Your task to perform on an android device: show emergency info Image 0: 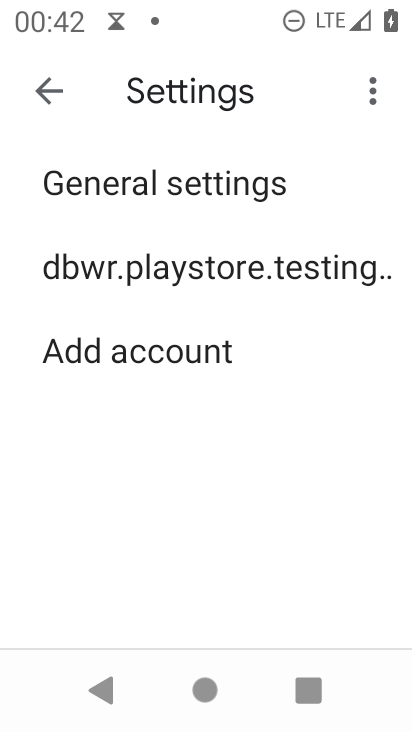
Step 0: press home button
Your task to perform on an android device: show emergency info Image 1: 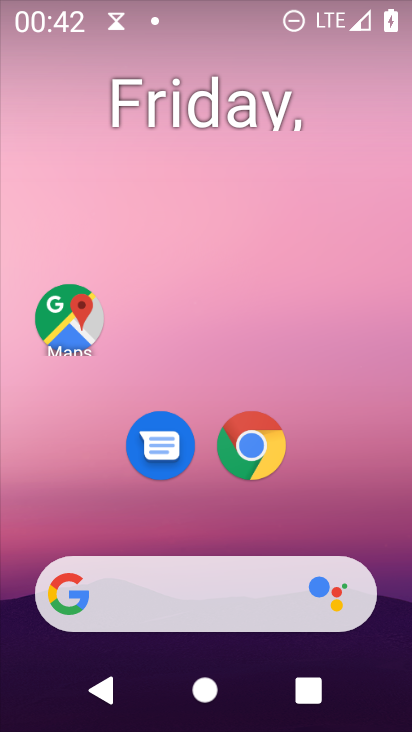
Step 1: drag from (217, 718) to (245, 10)
Your task to perform on an android device: show emergency info Image 2: 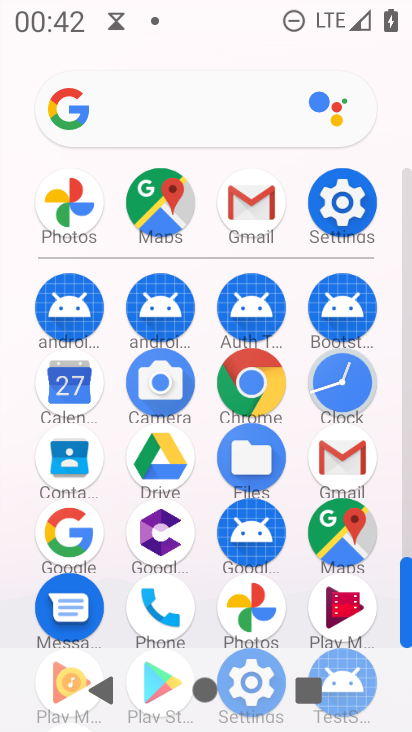
Step 2: click (346, 198)
Your task to perform on an android device: show emergency info Image 3: 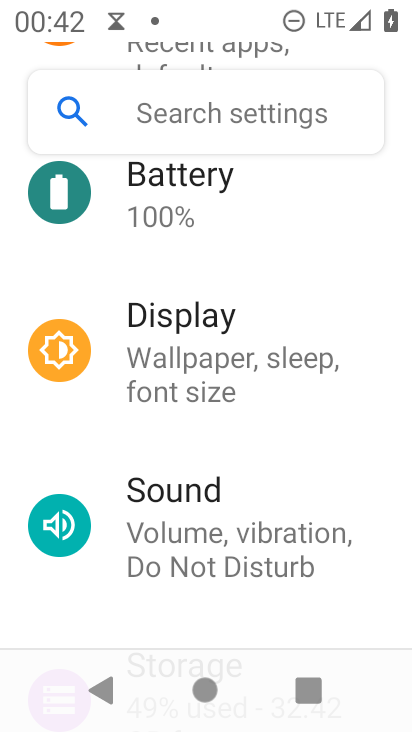
Step 3: drag from (303, 623) to (300, 157)
Your task to perform on an android device: show emergency info Image 4: 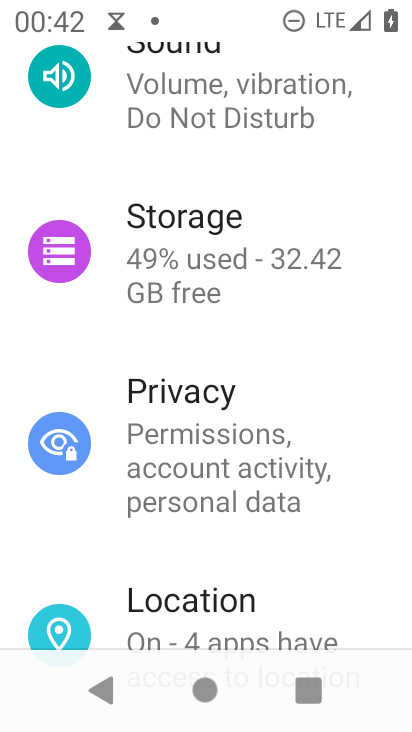
Step 4: drag from (327, 626) to (326, 162)
Your task to perform on an android device: show emergency info Image 5: 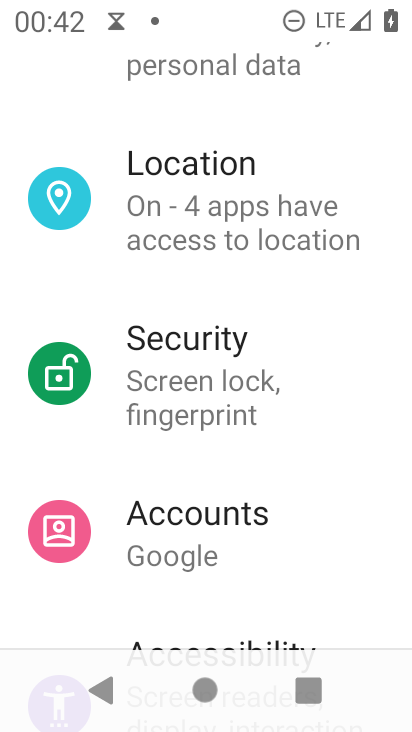
Step 5: drag from (316, 560) to (325, 227)
Your task to perform on an android device: show emergency info Image 6: 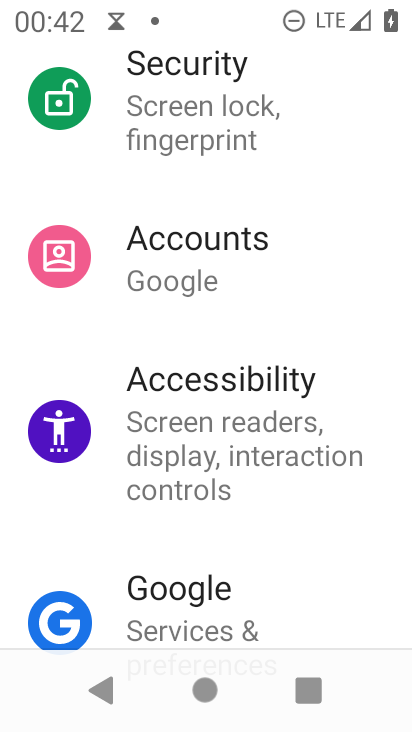
Step 6: drag from (315, 607) to (322, 214)
Your task to perform on an android device: show emergency info Image 7: 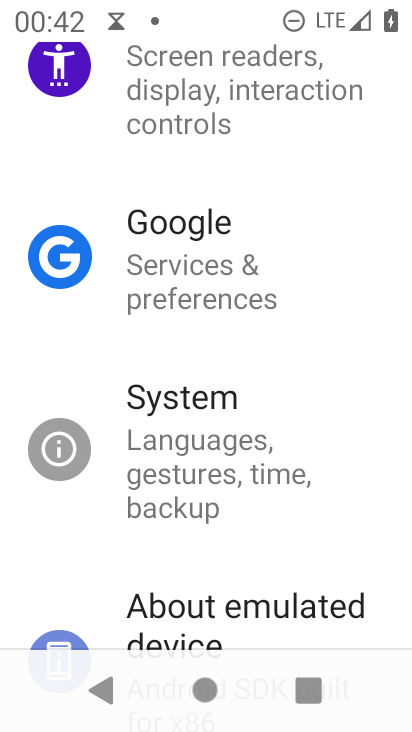
Step 7: drag from (324, 614) to (328, 171)
Your task to perform on an android device: show emergency info Image 8: 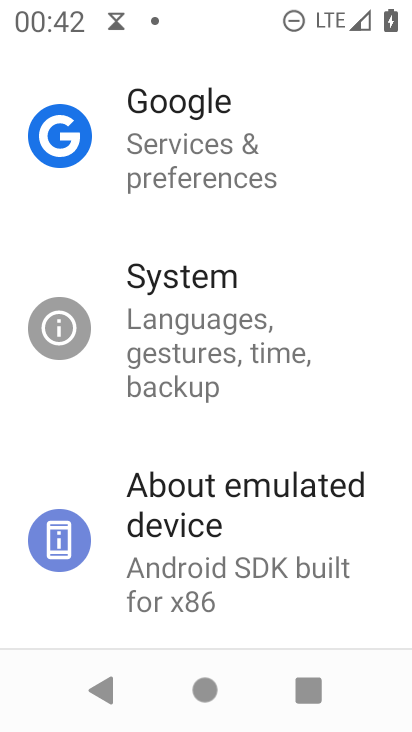
Step 8: click (178, 517)
Your task to perform on an android device: show emergency info Image 9: 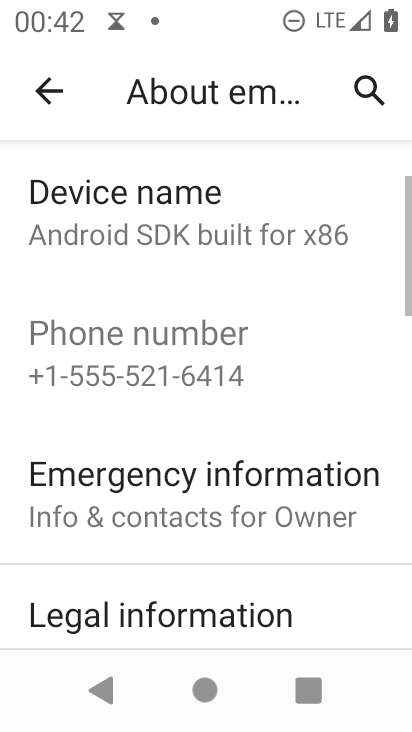
Step 9: click (168, 491)
Your task to perform on an android device: show emergency info Image 10: 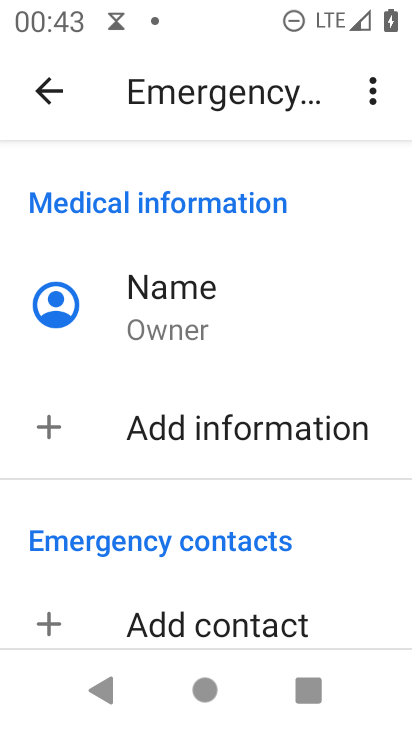
Step 10: task complete